Your task to perform on an android device: Clear all items from cart on walmart.com. Add macbook pro to the cart on walmart.com, then select checkout. Image 0: 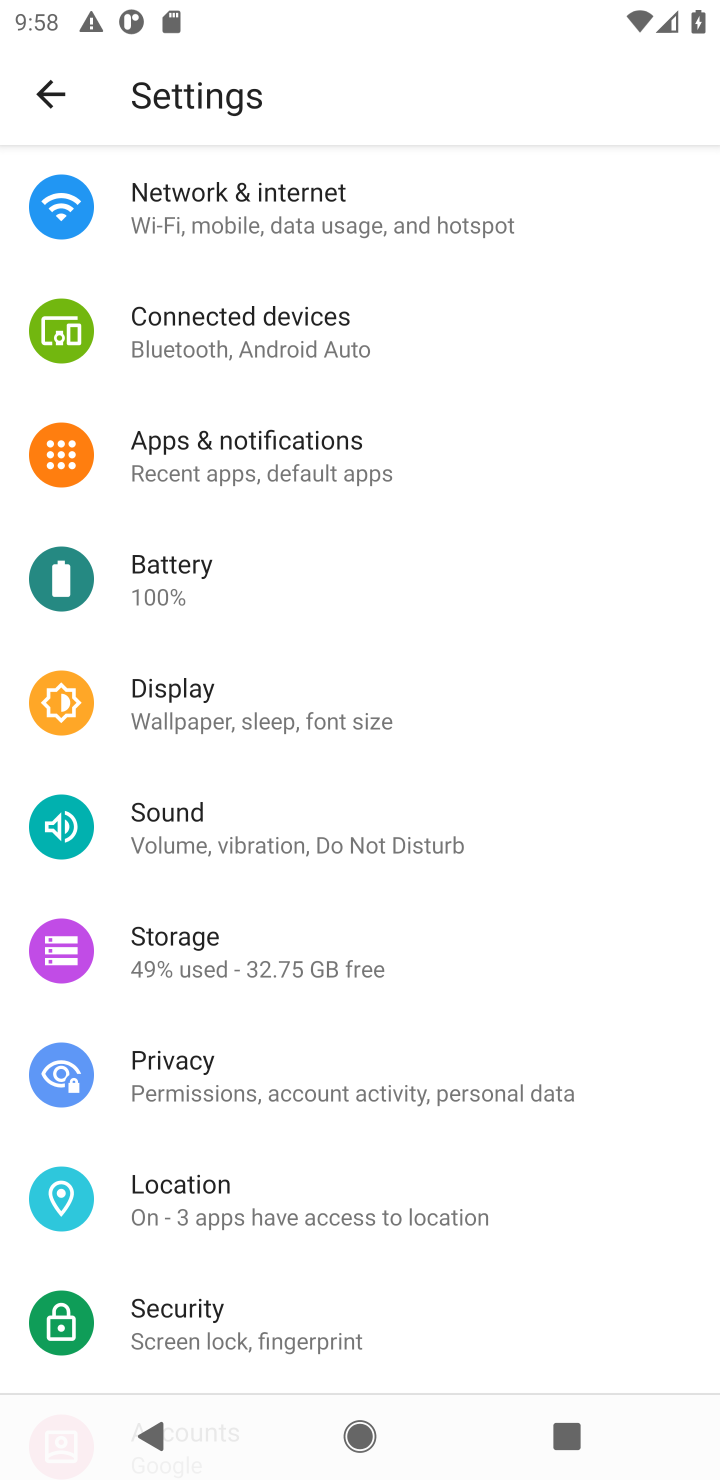
Step 0: press home button
Your task to perform on an android device: Clear all items from cart on walmart.com. Add macbook pro to the cart on walmart.com, then select checkout. Image 1: 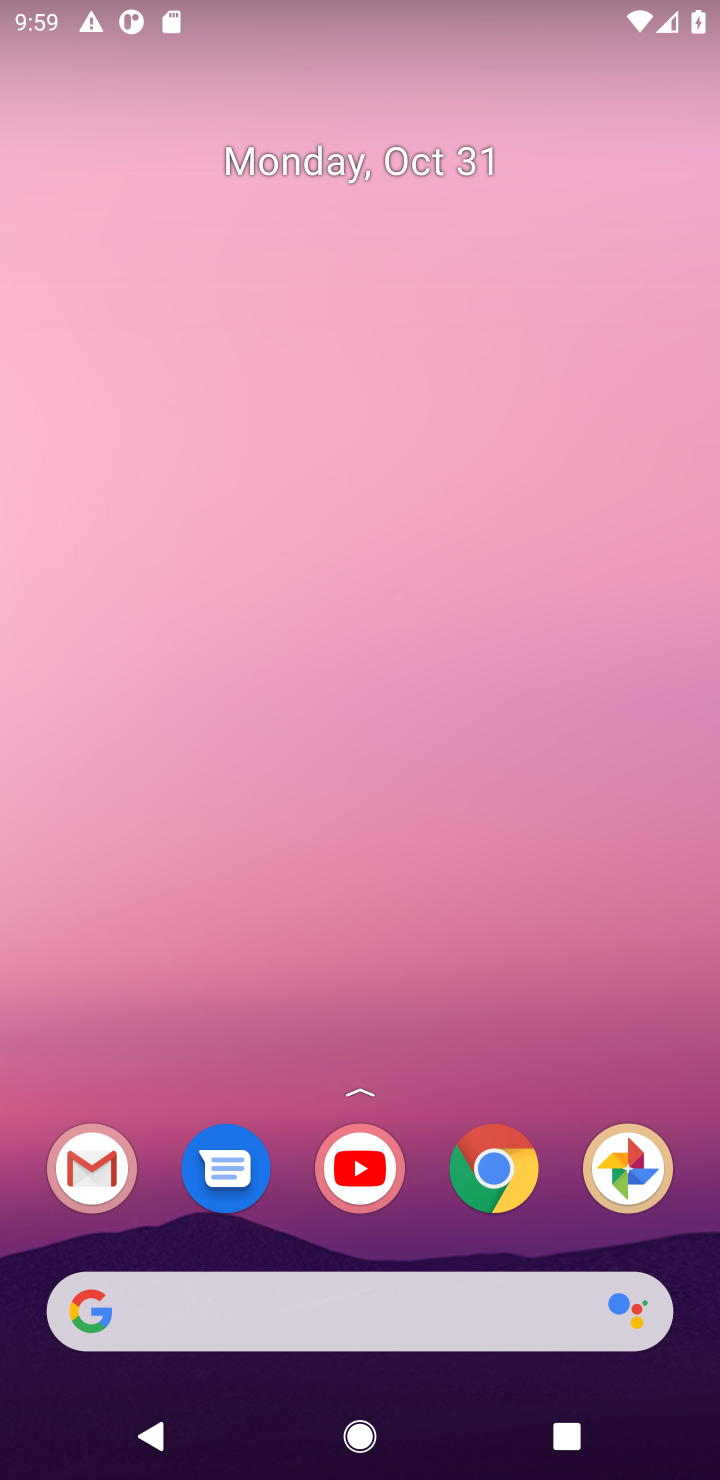
Step 1: click (507, 1154)
Your task to perform on an android device: Clear all items from cart on walmart.com. Add macbook pro to the cart on walmart.com, then select checkout. Image 2: 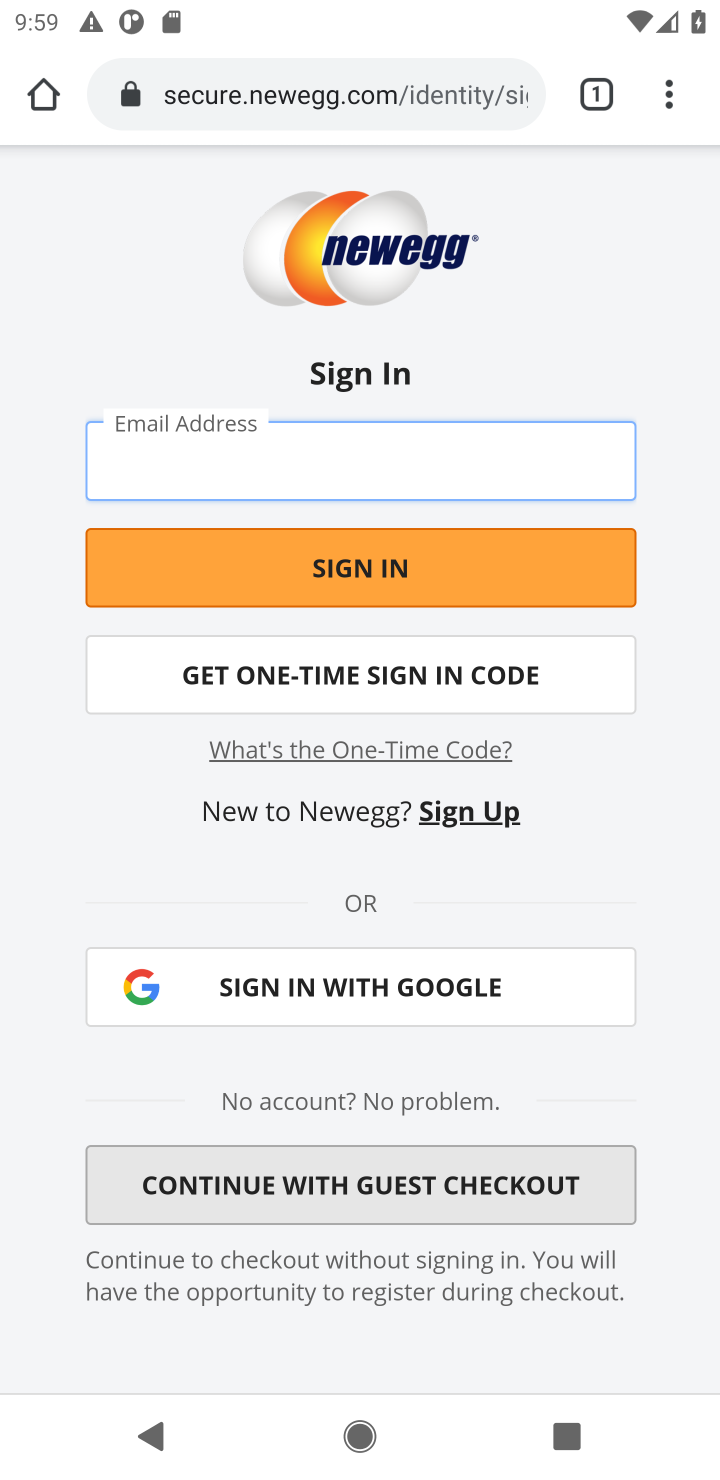
Step 2: click (410, 104)
Your task to perform on an android device: Clear all items from cart on walmart.com. Add macbook pro to the cart on walmart.com, then select checkout. Image 3: 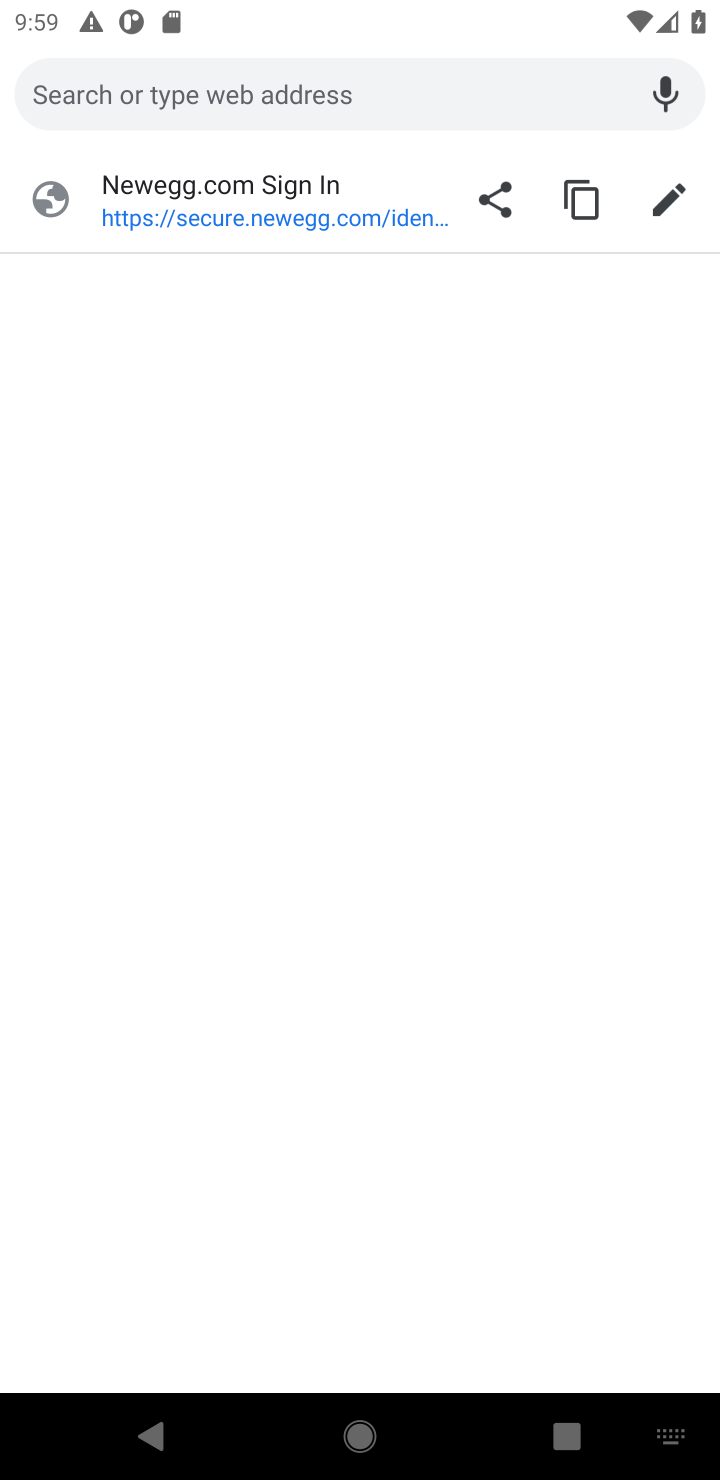
Step 3: type "walmart"
Your task to perform on an android device: Clear all items from cart on walmart.com. Add macbook pro to the cart on walmart.com, then select checkout. Image 4: 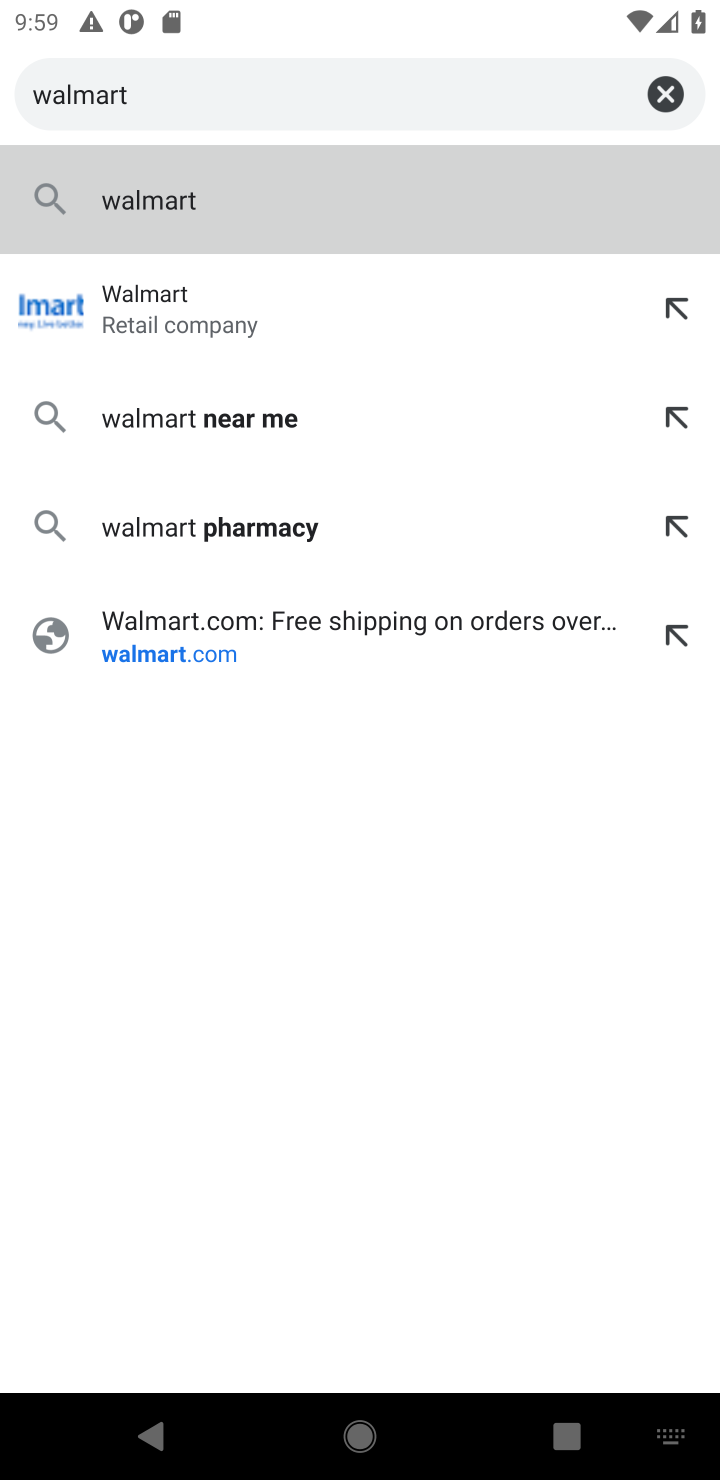
Step 4: press enter
Your task to perform on an android device: Clear all items from cart on walmart.com. Add macbook pro to the cart on walmart.com, then select checkout. Image 5: 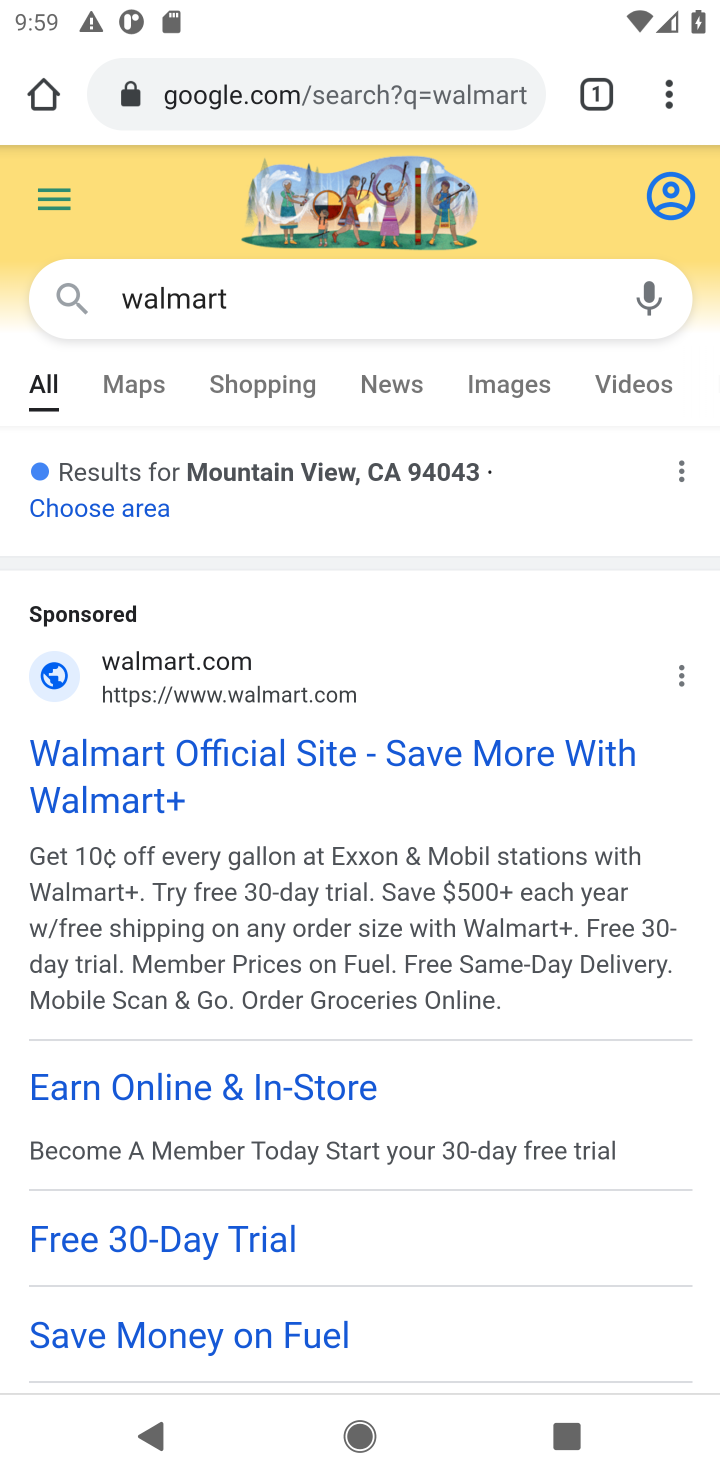
Step 5: drag from (460, 1049) to (338, 485)
Your task to perform on an android device: Clear all items from cart on walmart.com. Add macbook pro to the cart on walmart.com, then select checkout. Image 6: 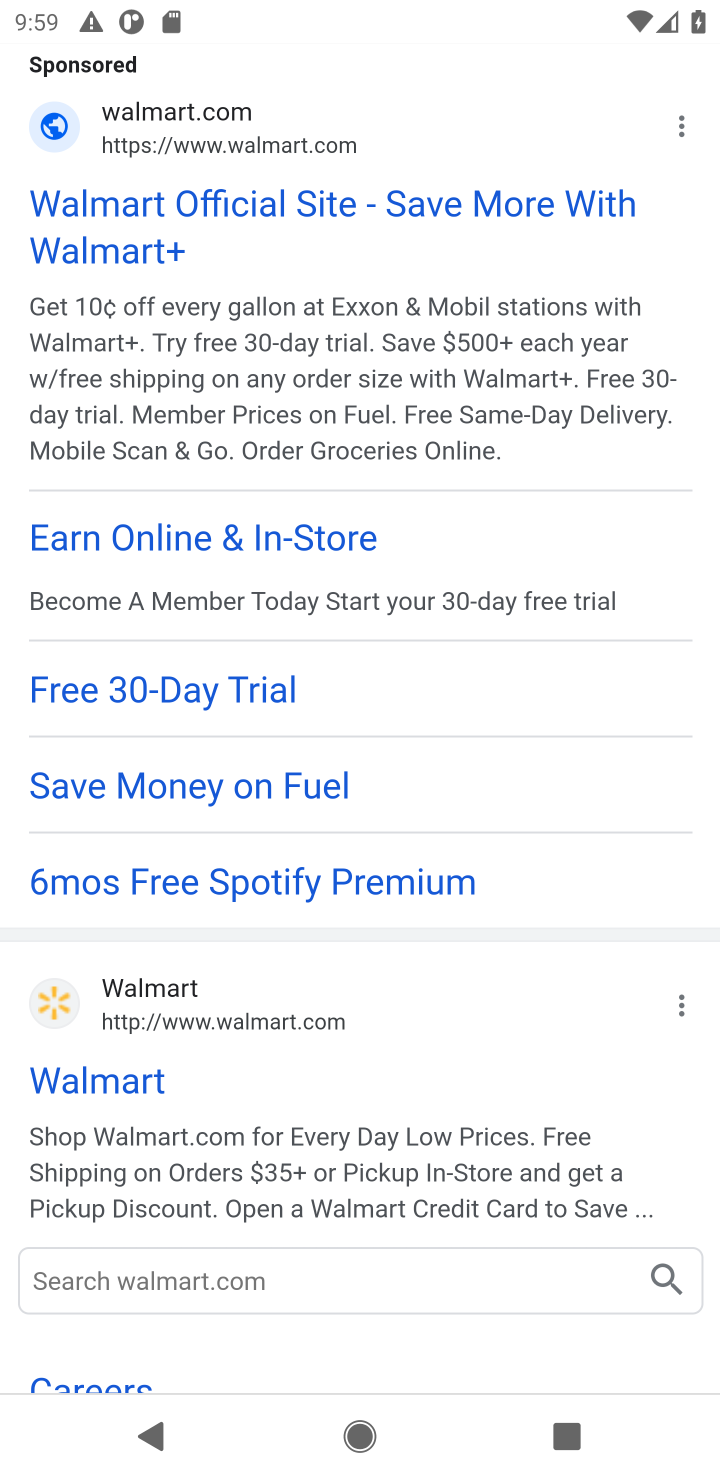
Step 6: click (111, 1085)
Your task to perform on an android device: Clear all items from cart on walmart.com. Add macbook pro to the cart on walmart.com, then select checkout. Image 7: 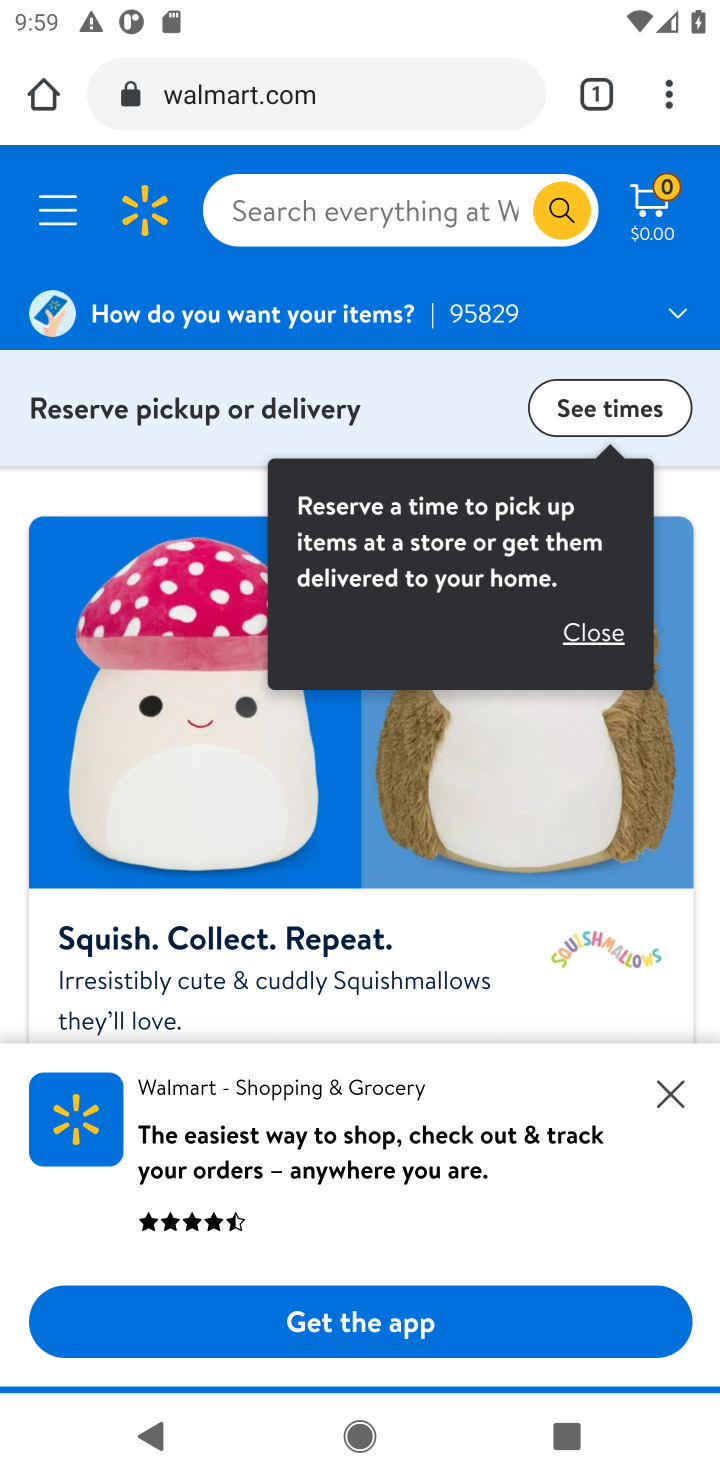
Step 7: click (659, 213)
Your task to perform on an android device: Clear all items from cart on walmart.com. Add macbook pro to the cart on walmart.com, then select checkout. Image 8: 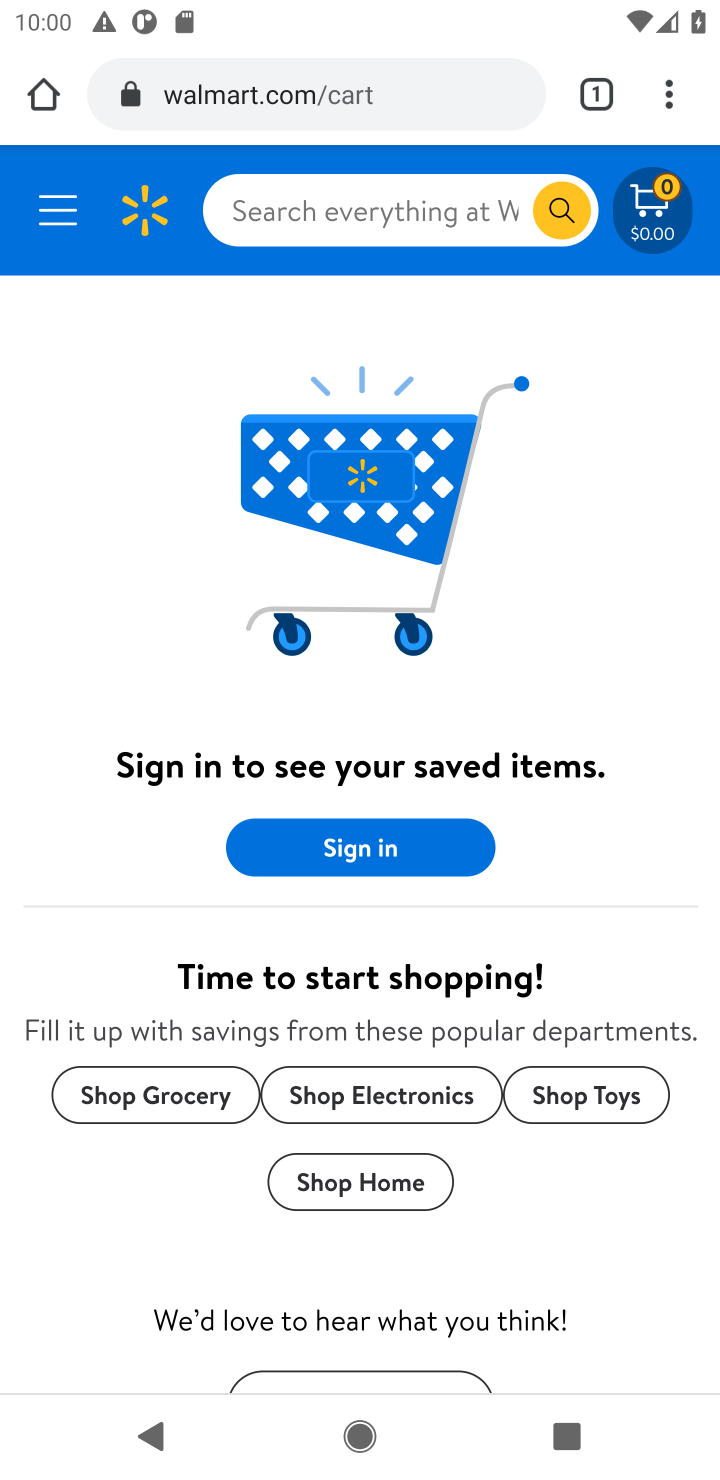
Step 8: click (425, 199)
Your task to perform on an android device: Clear all items from cart on walmart.com. Add macbook pro to the cart on walmart.com, then select checkout. Image 9: 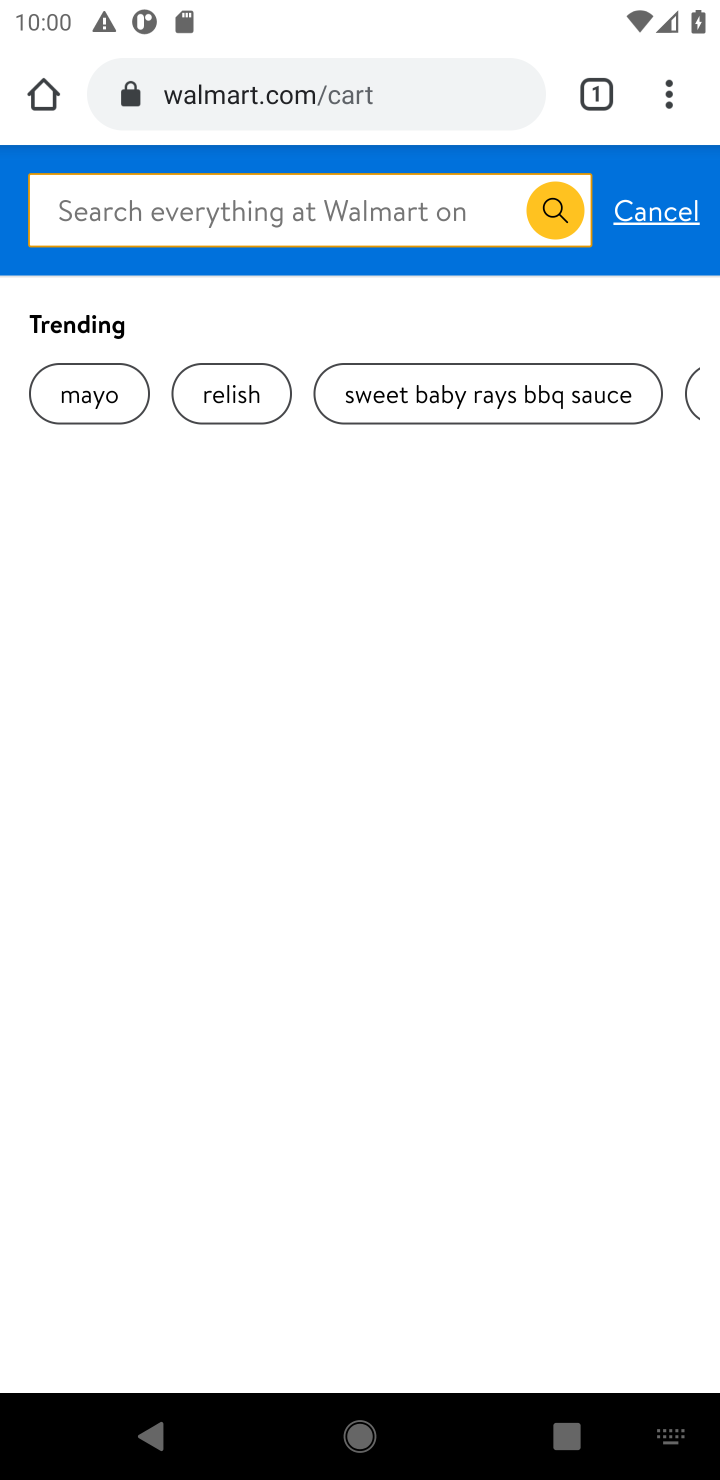
Step 9: type "macbook pro"
Your task to perform on an android device: Clear all items from cart on walmart.com. Add macbook pro to the cart on walmart.com, then select checkout. Image 10: 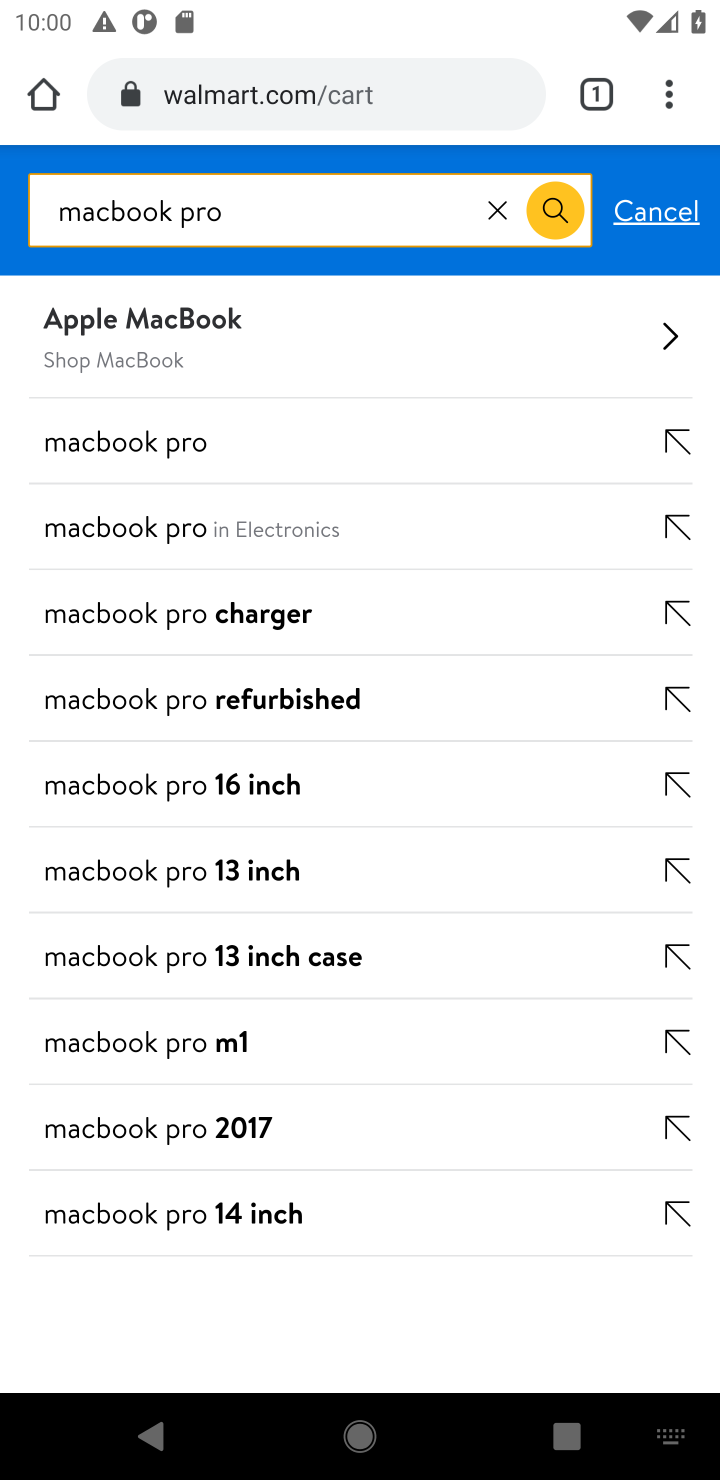
Step 10: press enter
Your task to perform on an android device: Clear all items from cart on walmart.com. Add macbook pro to the cart on walmart.com, then select checkout. Image 11: 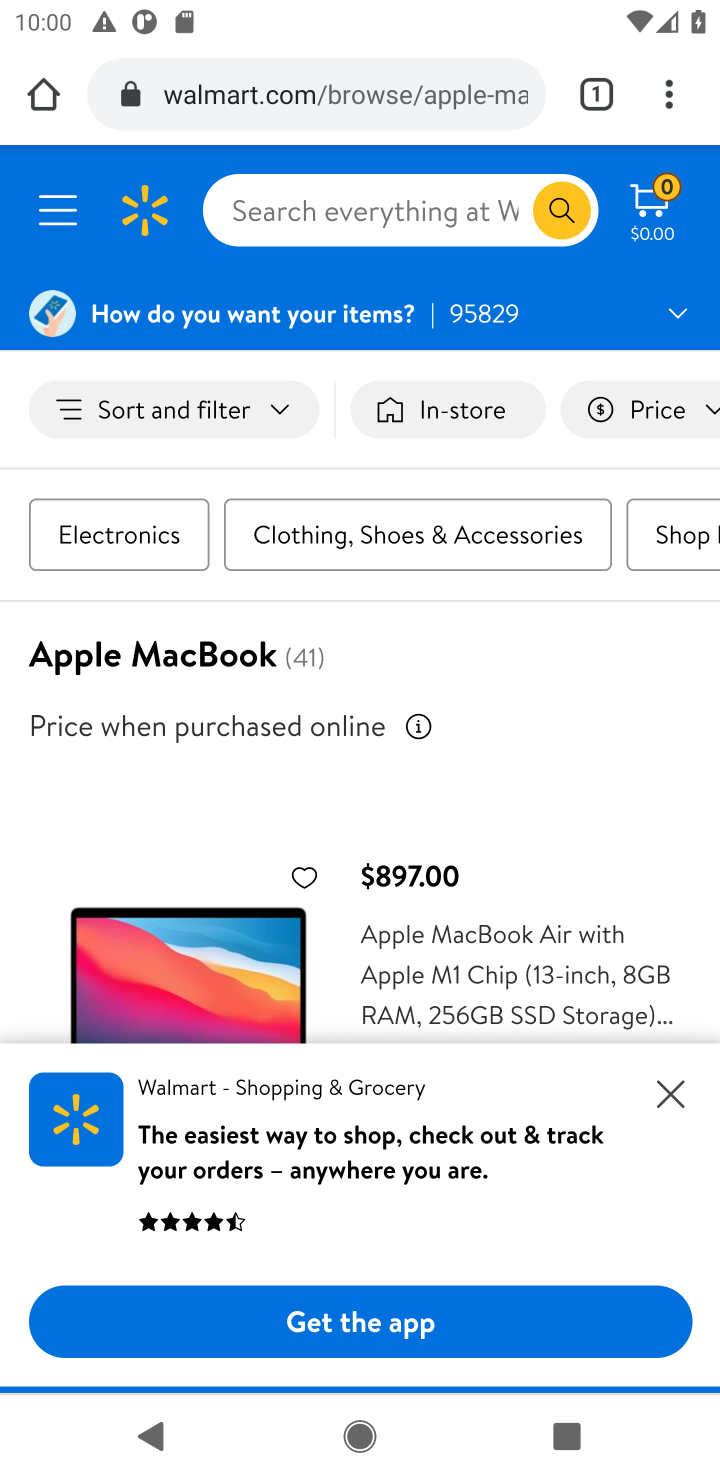
Step 11: click (673, 1104)
Your task to perform on an android device: Clear all items from cart on walmart.com. Add macbook pro to the cart on walmart.com, then select checkout. Image 12: 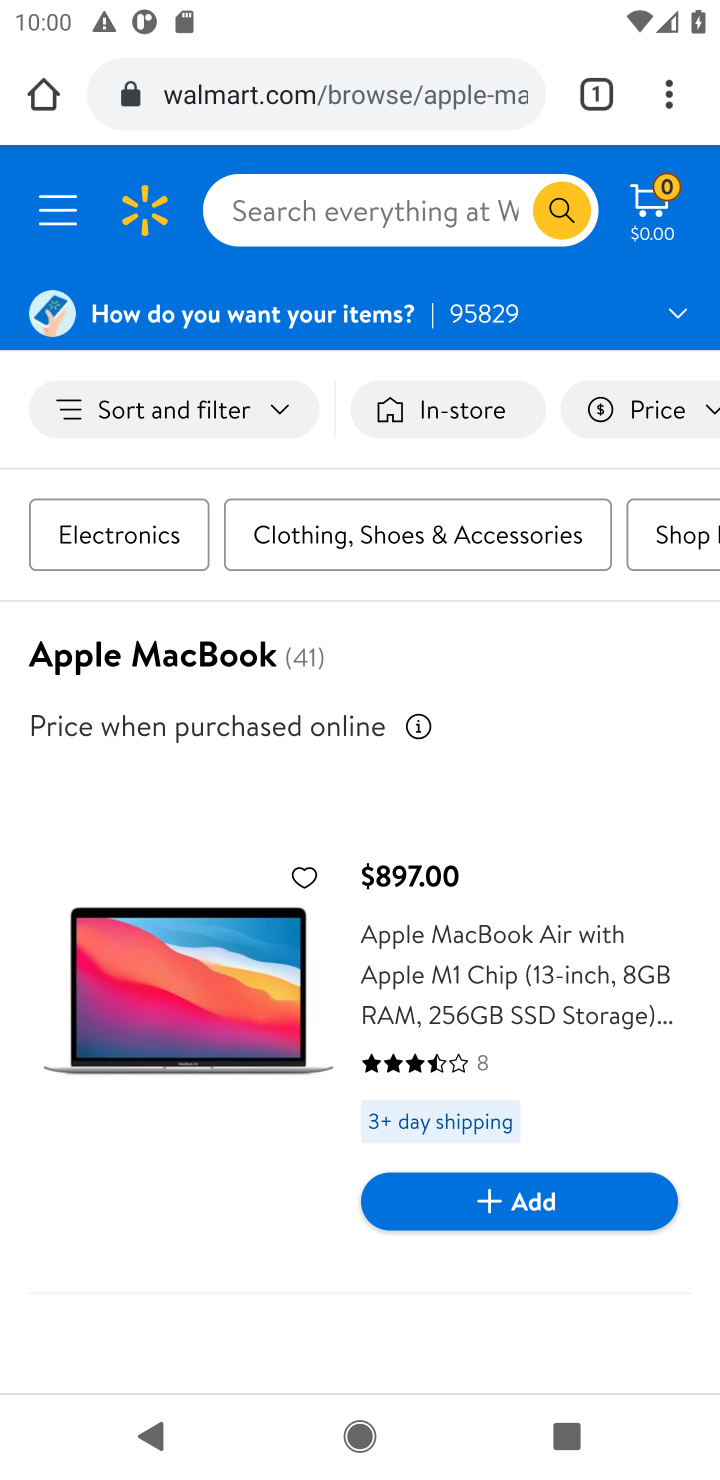
Step 12: click (530, 1197)
Your task to perform on an android device: Clear all items from cart on walmart.com. Add macbook pro to the cart on walmart.com, then select checkout. Image 13: 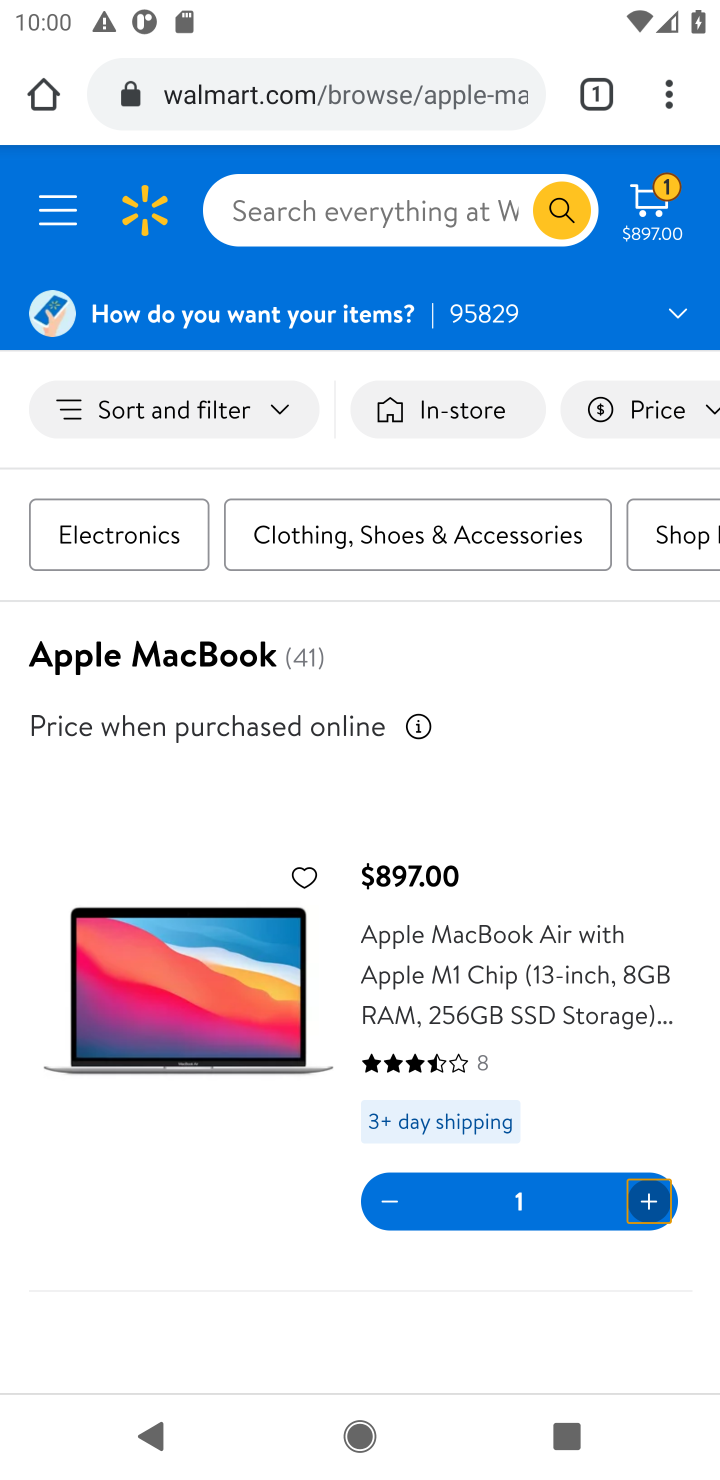
Step 13: click (666, 204)
Your task to perform on an android device: Clear all items from cart on walmart.com. Add macbook pro to the cart on walmart.com, then select checkout. Image 14: 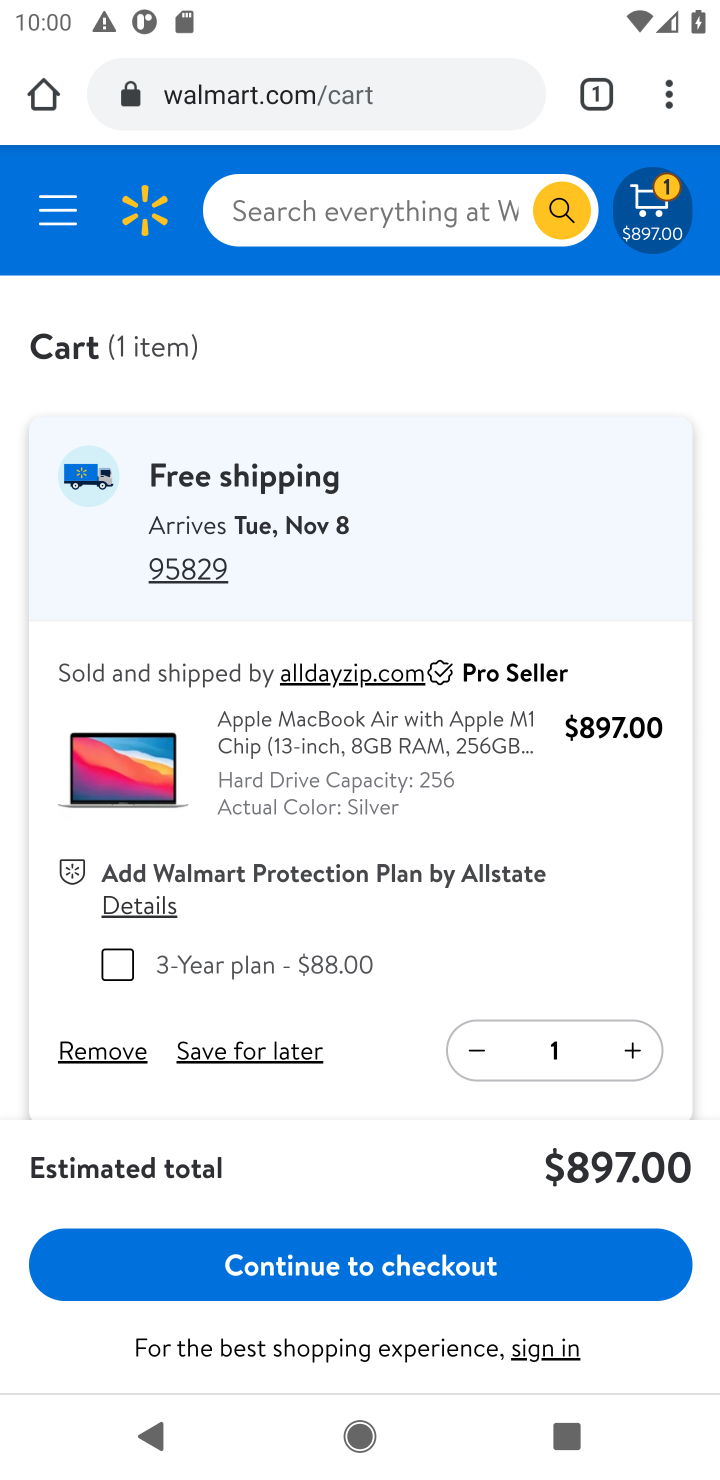
Step 14: click (356, 1267)
Your task to perform on an android device: Clear all items from cart on walmart.com. Add macbook pro to the cart on walmart.com, then select checkout. Image 15: 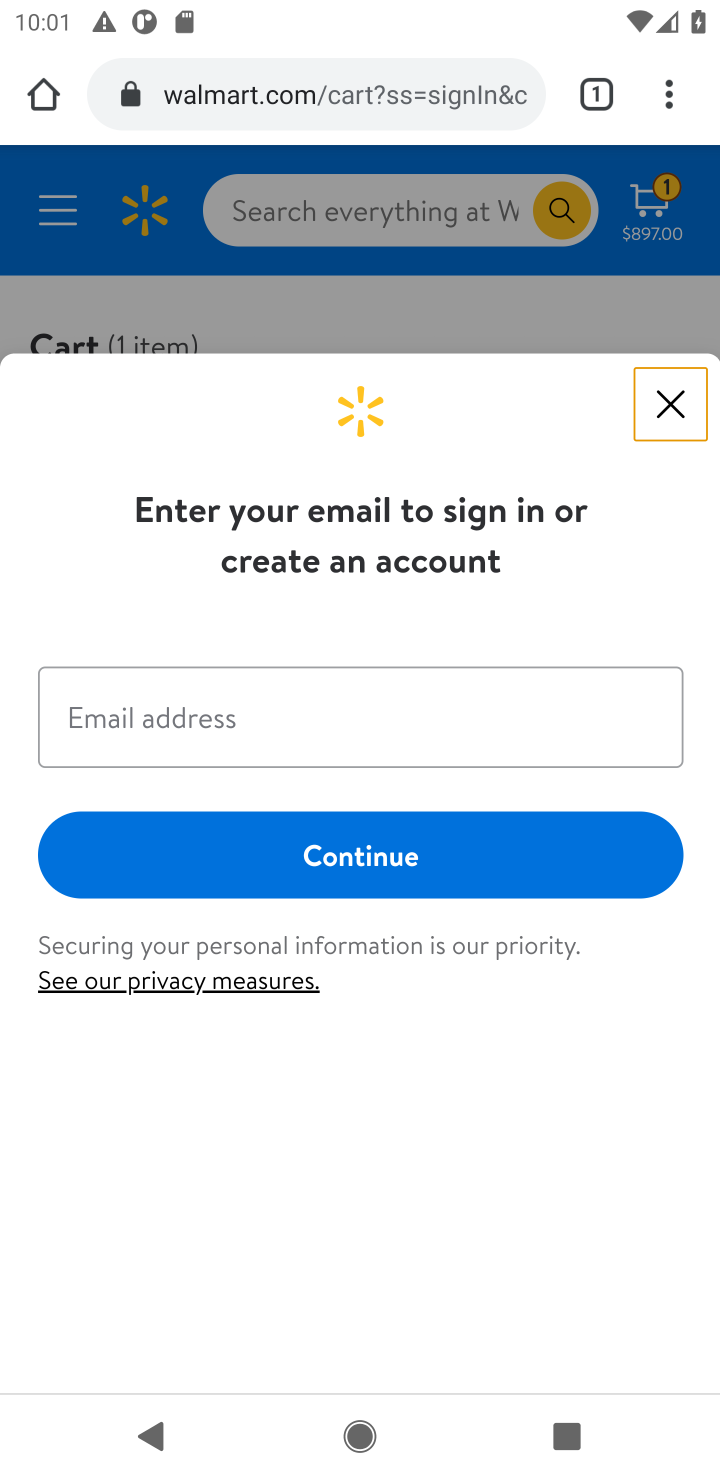
Step 15: task complete